Your task to perform on an android device: Open Youtube and go to "Your channel" Image 0: 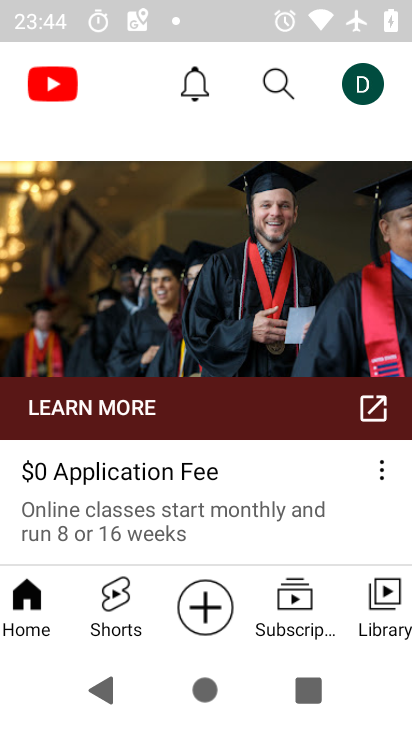
Step 0: press home button
Your task to perform on an android device: Open Youtube and go to "Your channel" Image 1: 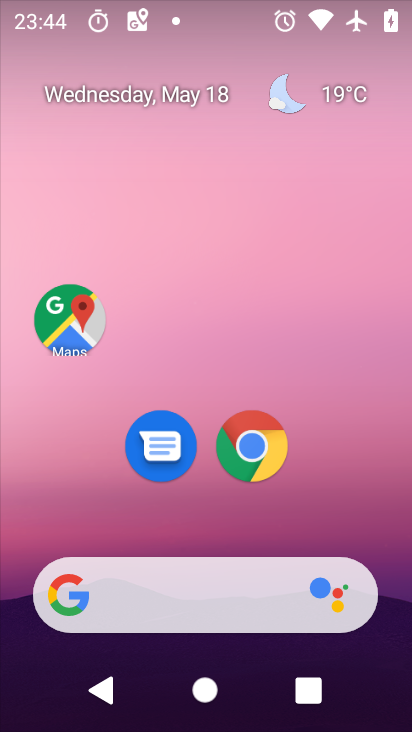
Step 1: drag from (149, 604) to (326, 141)
Your task to perform on an android device: Open Youtube and go to "Your channel" Image 2: 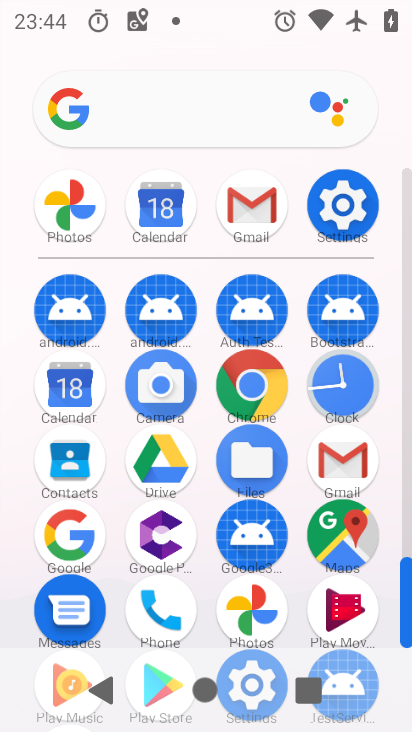
Step 2: drag from (205, 604) to (341, 212)
Your task to perform on an android device: Open Youtube and go to "Your channel" Image 3: 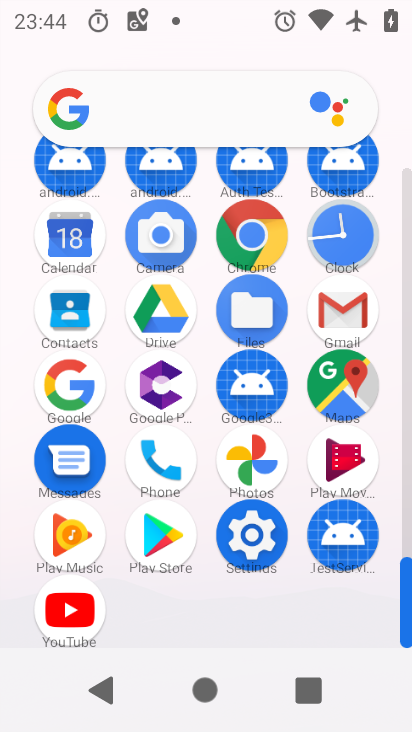
Step 3: click (74, 626)
Your task to perform on an android device: Open Youtube and go to "Your channel" Image 4: 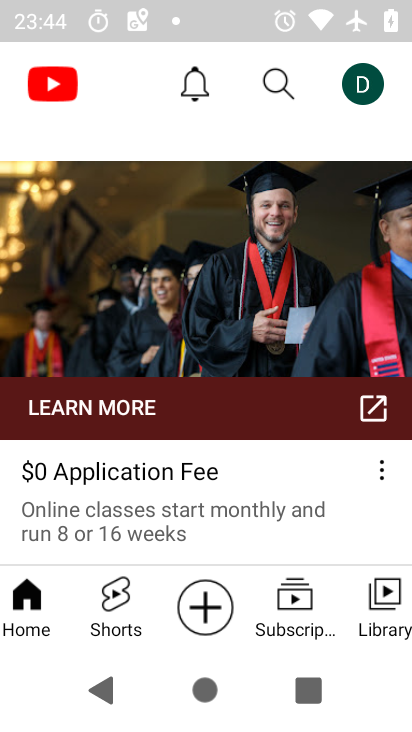
Step 4: click (369, 85)
Your task to perform on an android device: Open Youtube and go to "Your channel" Image 5: 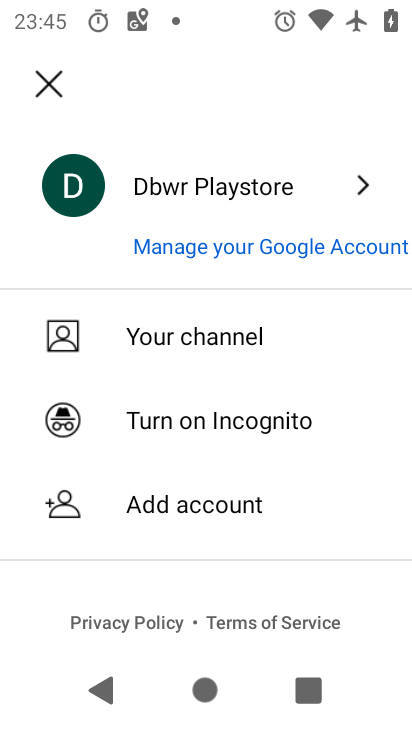
Step 5: click (243, 334)
Your task to perform on an android device: Open Youtube and go to "Your channel" Image 6: 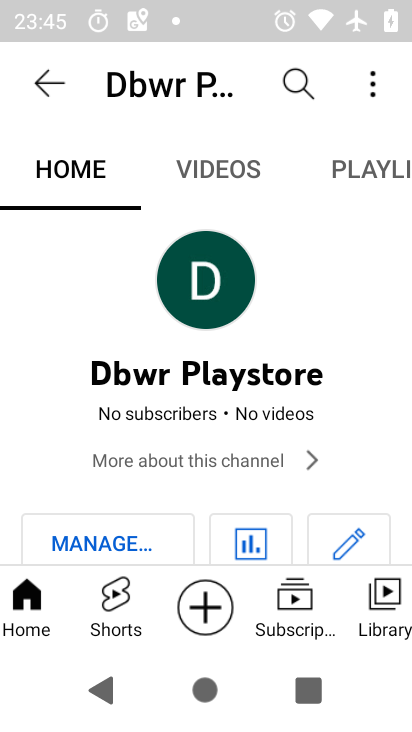
Step 6: task complete